Your task to perform on an android device: open app "Adobe Express: Graphic Design" Image 0: 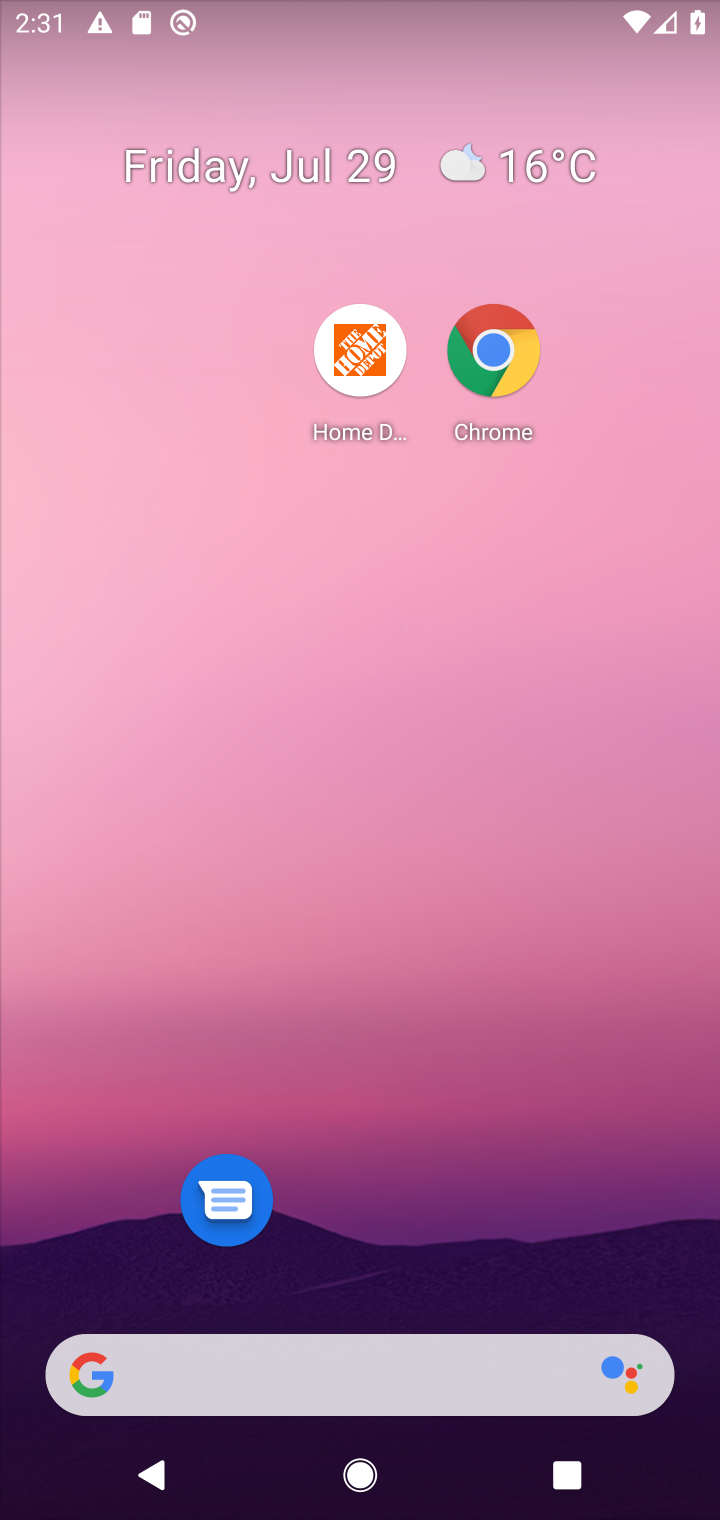
Step 0: drag from (428, 902) to (503, 131)
Your task to perform on an android device: open app "Adobe Express: Graphic Design" Image 1: 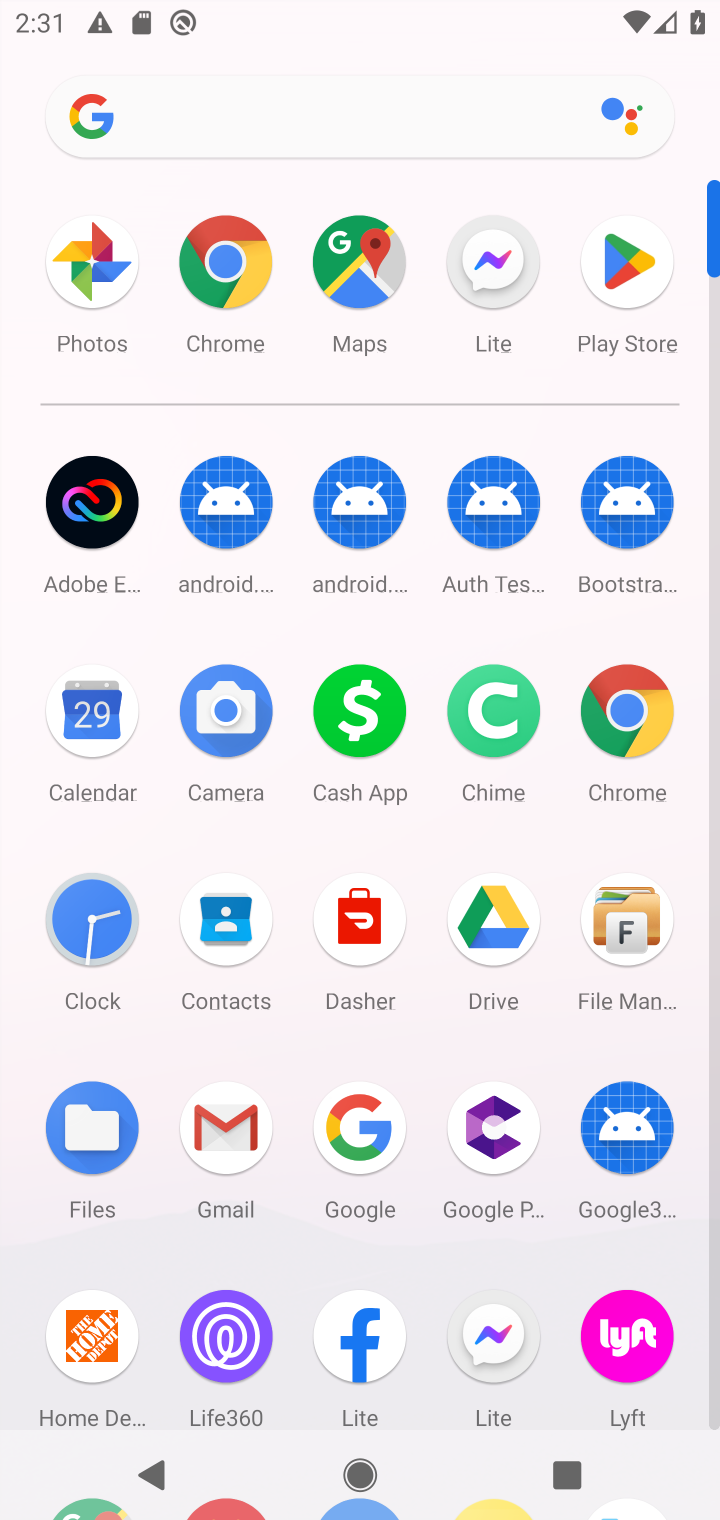
Step 1: click (607, 263)
Your task to perform on an android device: open app "Adobe Express: Graphic Design" Image 2: 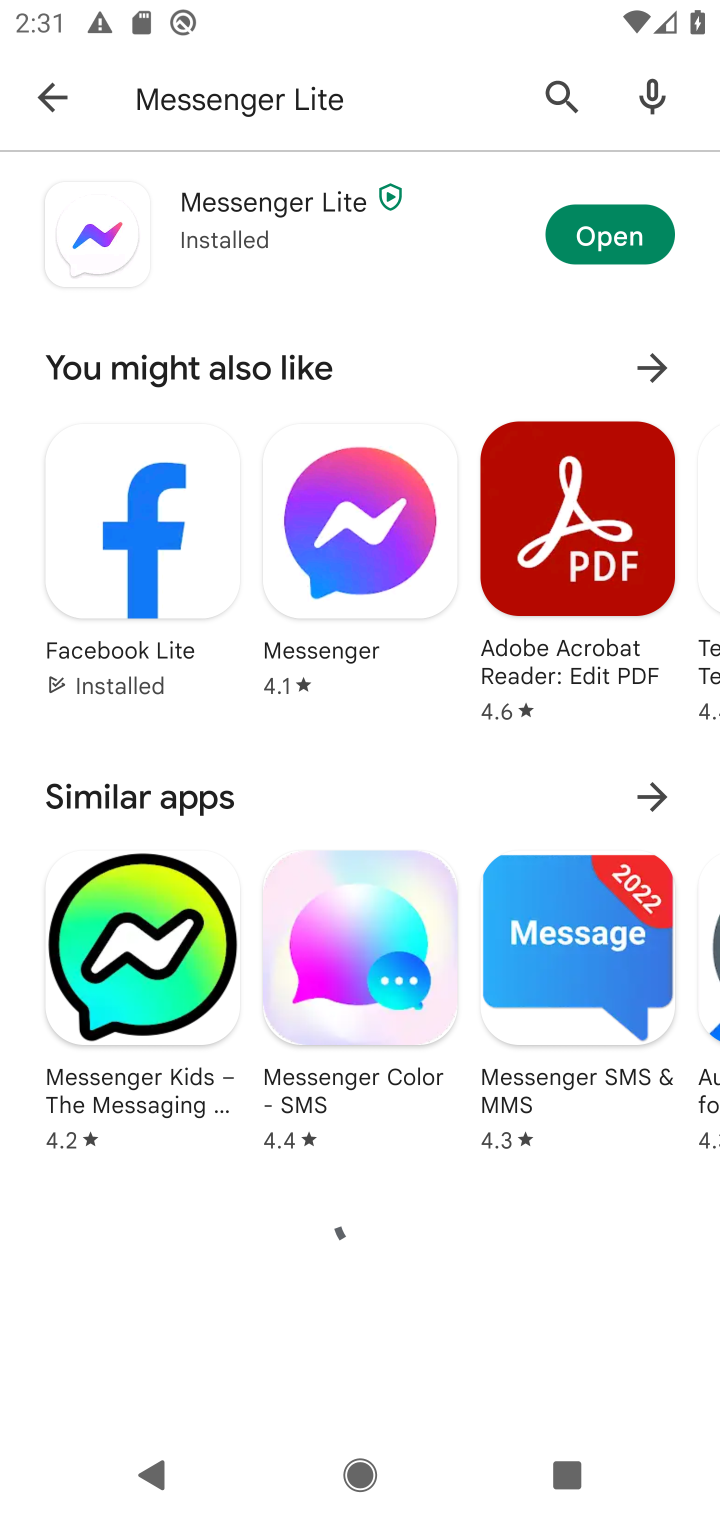
Step 2: click (401, 102)
Your task to perform on an android device: open app "Adobe Express: Graphic Design" Image 3: 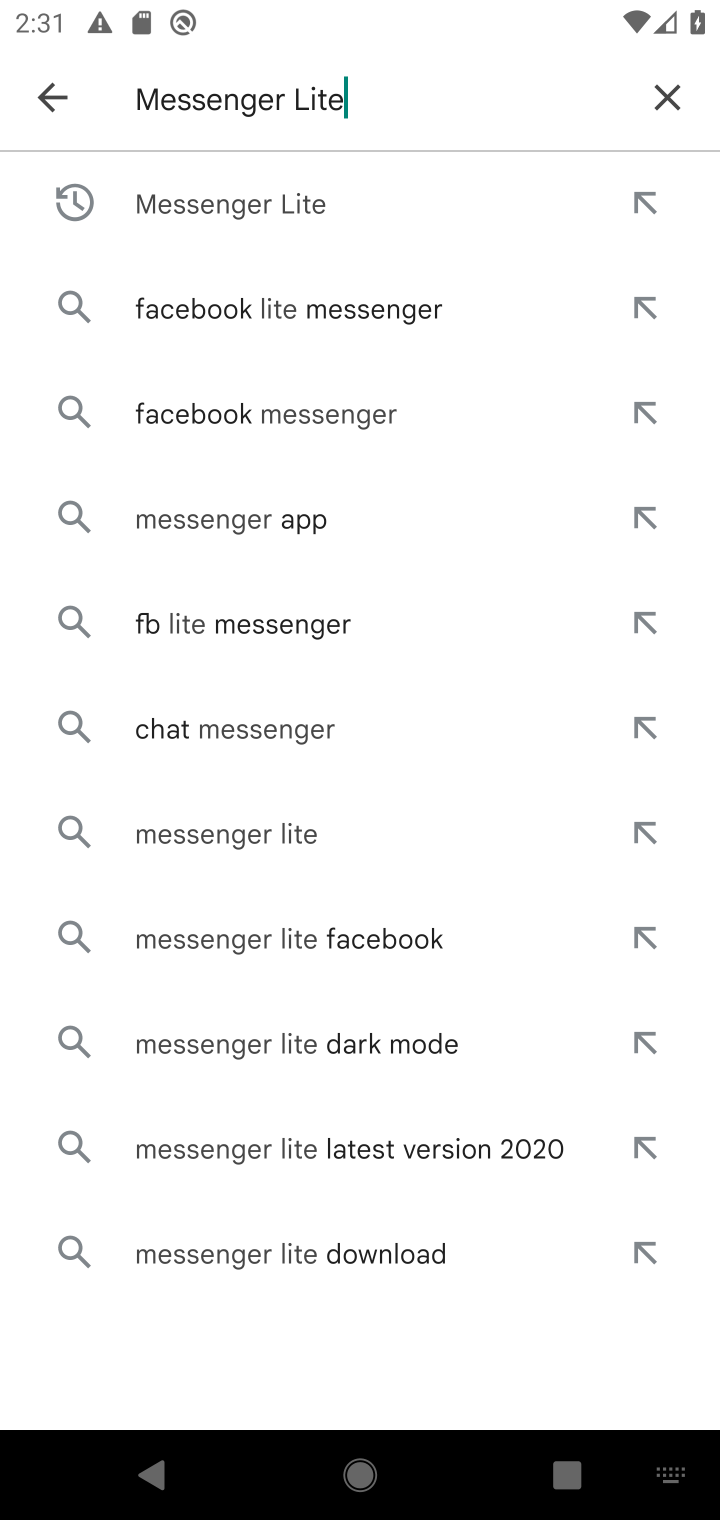
Step 3: click (678, 89)
Your task to perform on an android device: open app "Adobe Express: Graphic Design" Image 4: 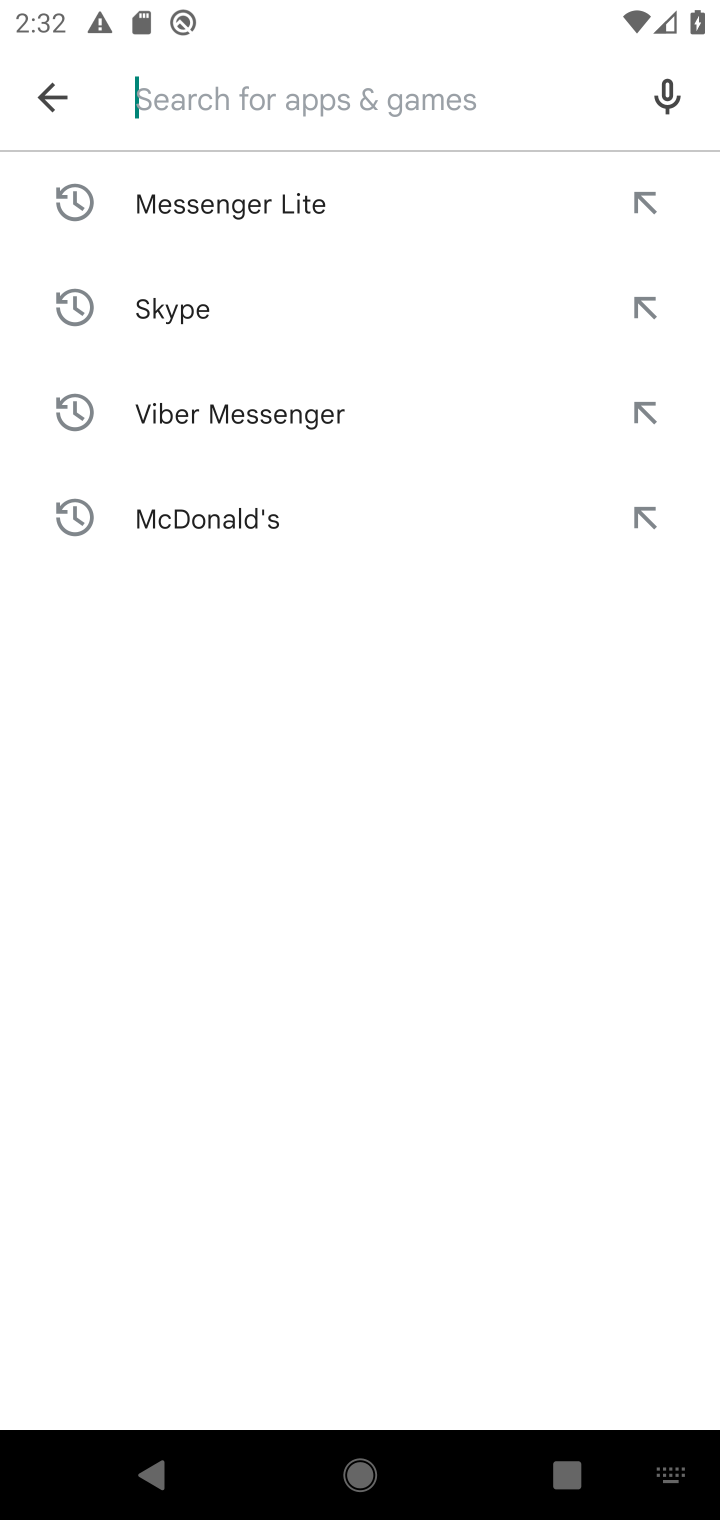
Step 4: type "Adobe Express: Graphic Design"
Your task to perform on an android device: open app "Adobe Express: Graphic Design" Image 5: 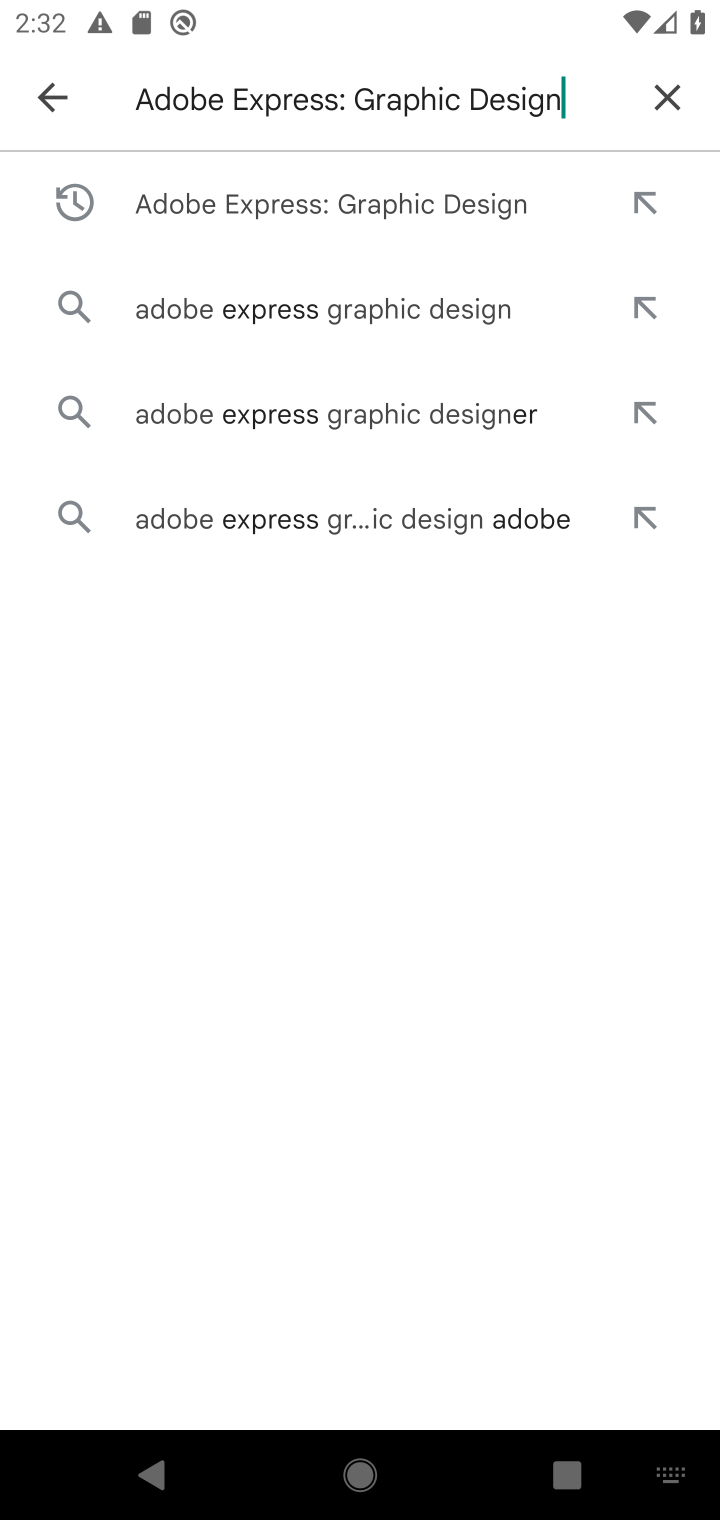
Step 5: press enter
Your task to perform on an android device: open app "Adobe Express: Graphic Design" Image 6: 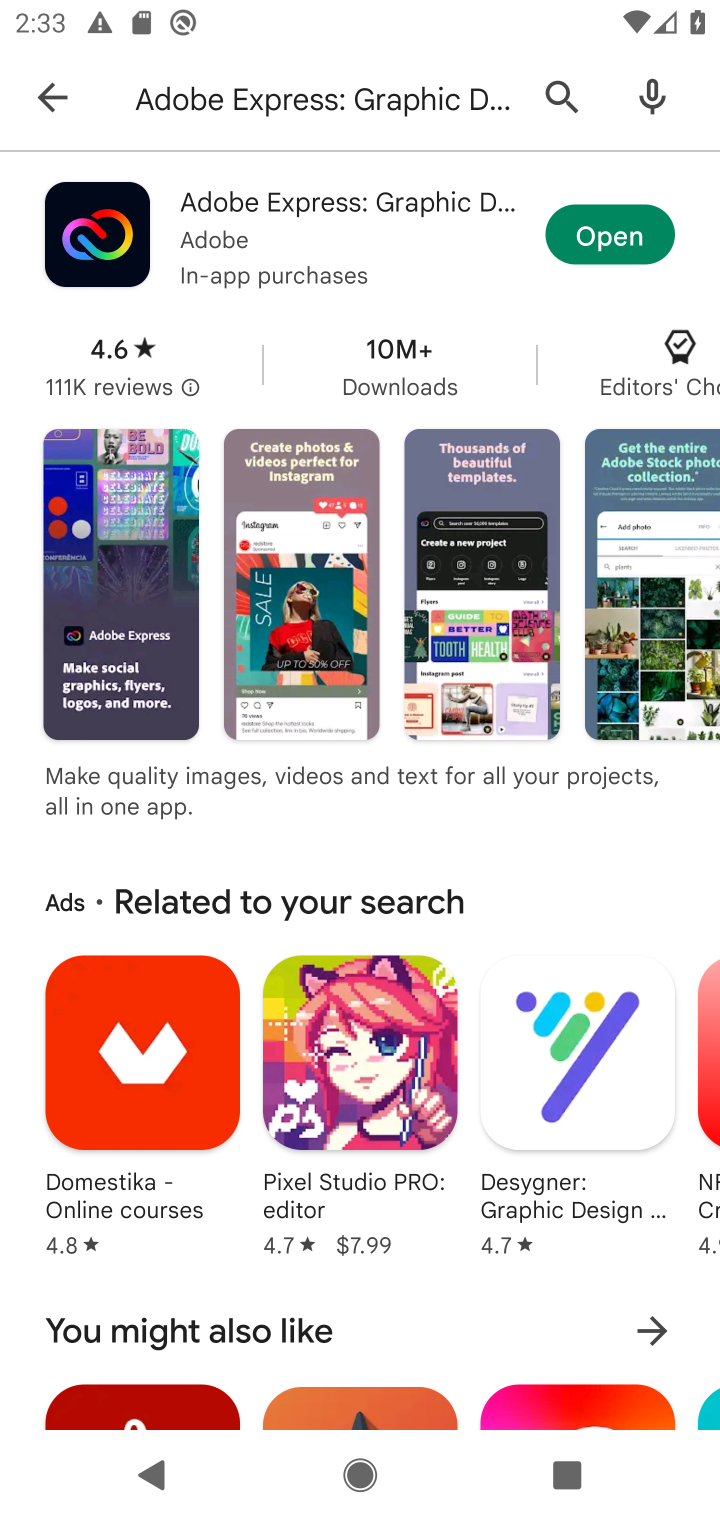
Step 6: click (598, 238)
Your task to perform on an android device: open app "Adobe Express: Graphic Design" Image 7: 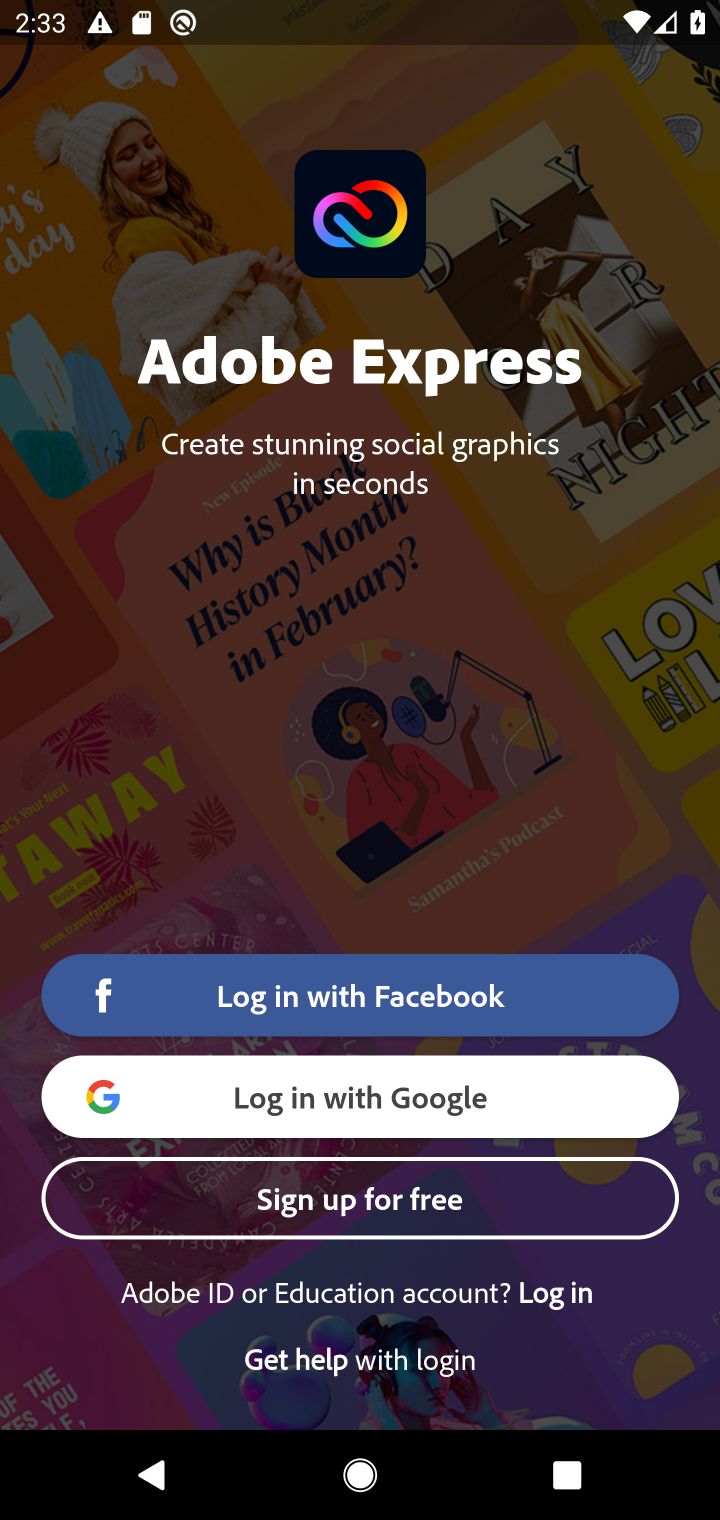
Step 7: task complete